Your task to perform on an android device: toggle wifi Image 0: 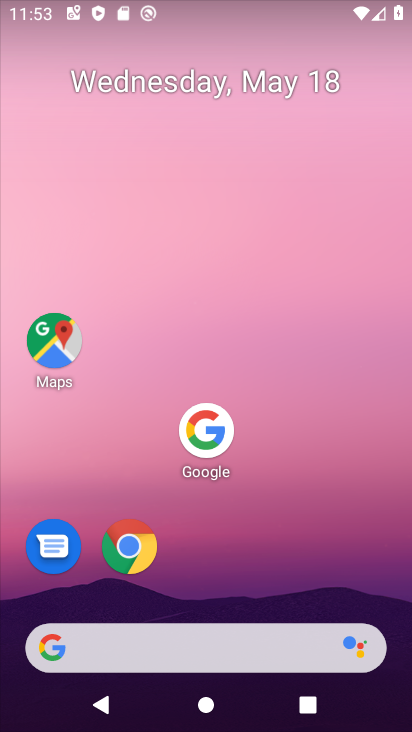
Step 0: drag from (269, 555) to (268, 113)
Your task to perform on an android device: toggle wifi Image 1: 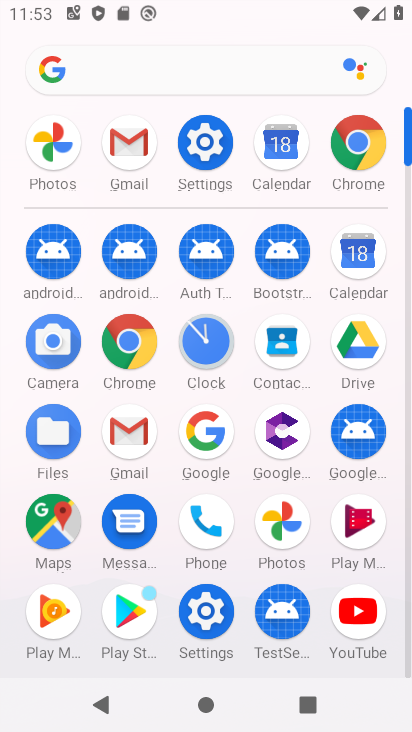
Step 1: click (208, 137)
Your task to perform on an android device: toggle wifi Image 2: 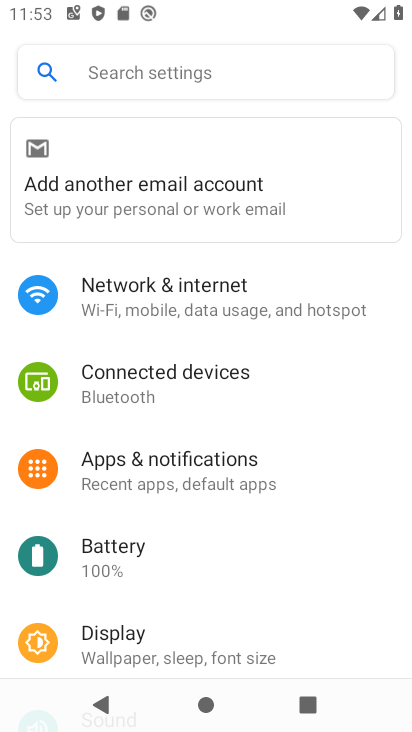
Step 2: click (183, 283)
Your task to perform on an android device: toggle wifi Image 3: 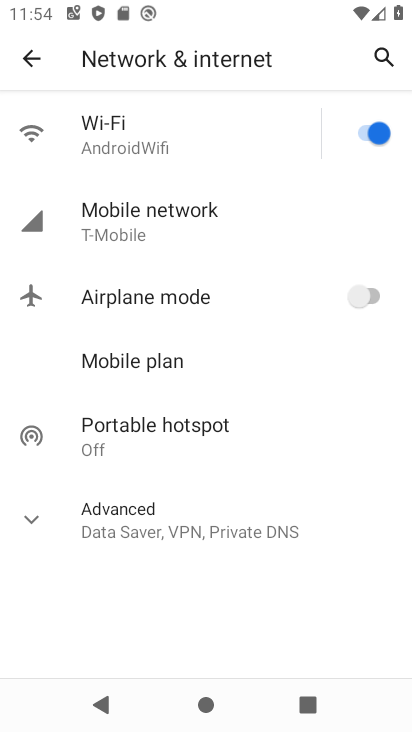
Step 3: click (381, 134)
Your task to perform on an android device: toggle wifi Image 4: 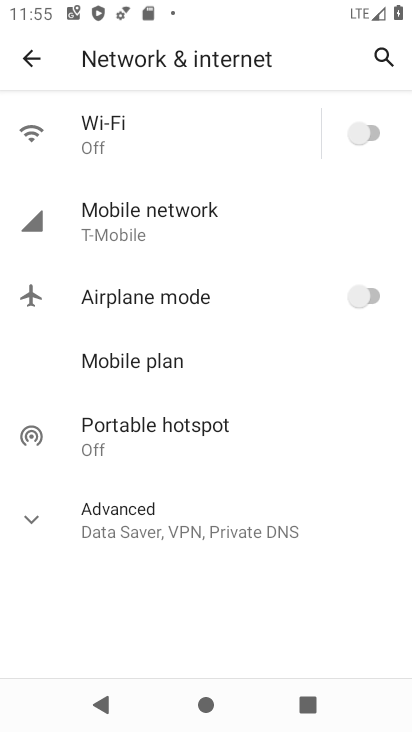
Step 4: task complete